Your task to perform on an android device: Check the weather Image 0: 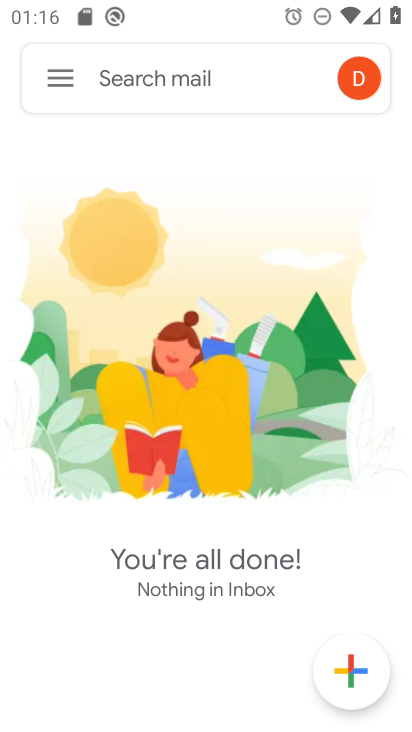
Step 0: press home button
Your task to perform on an android device: Check the weather Image 1: 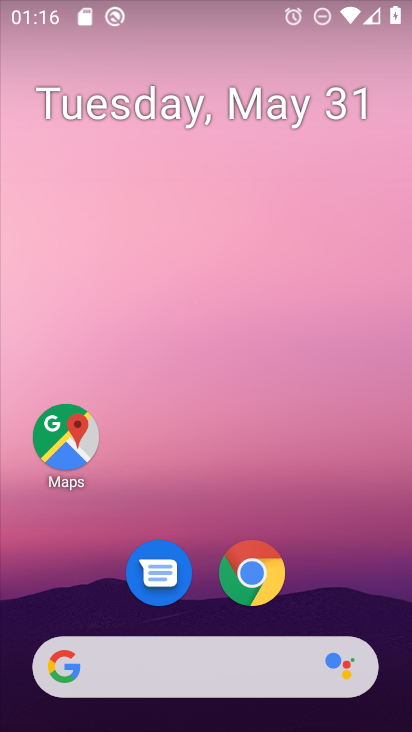
Step 1: click (242, 689)
Your task to perform on an android device: Check the weather Image 2: 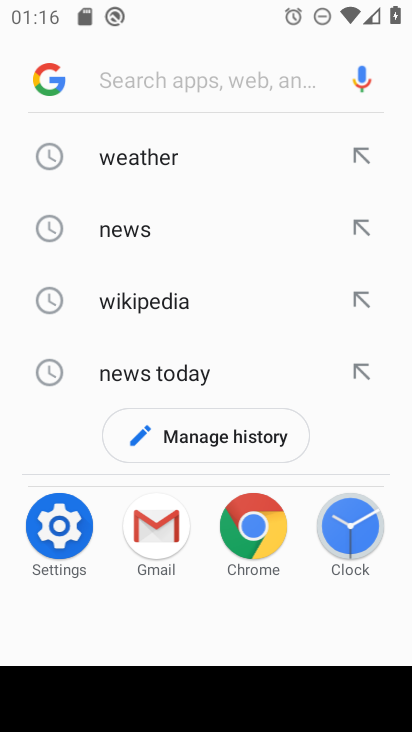
Step 2: click (185, 149)
Your task to perform on an android device: Check the weather Image 3: 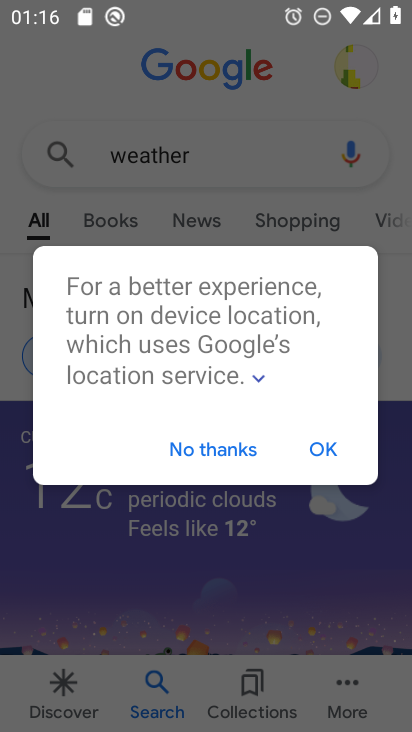
Step 3: task complete